Your task to perform on an android device: Go to network settings Image 0: 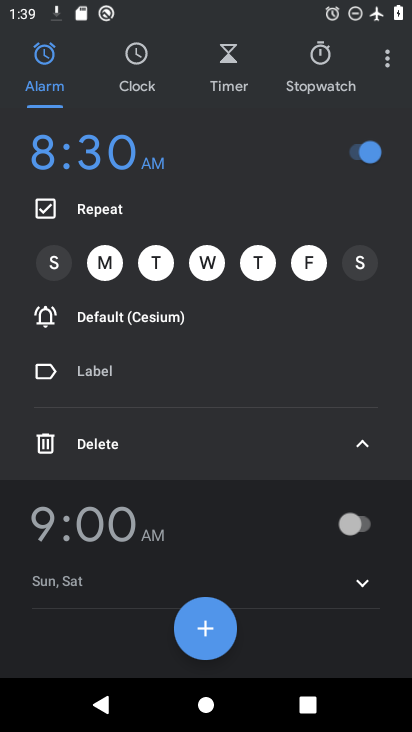
Step 0: press home button
Your task to perform on an android device: Go to network settings Image 1: 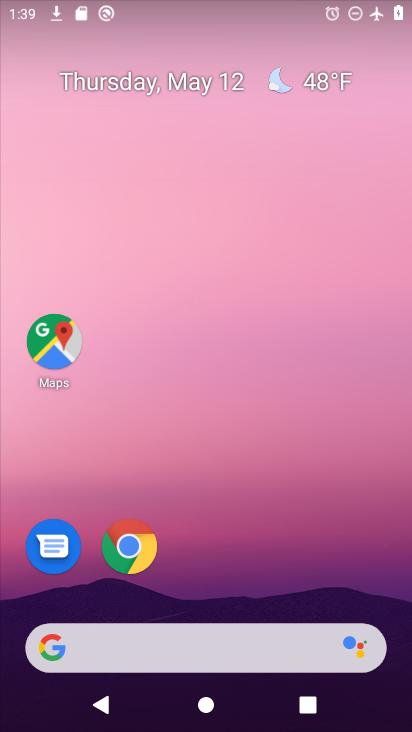
Step 1: click (323, 225)
Your task to perform on an android device: Go to network settings Image 2: 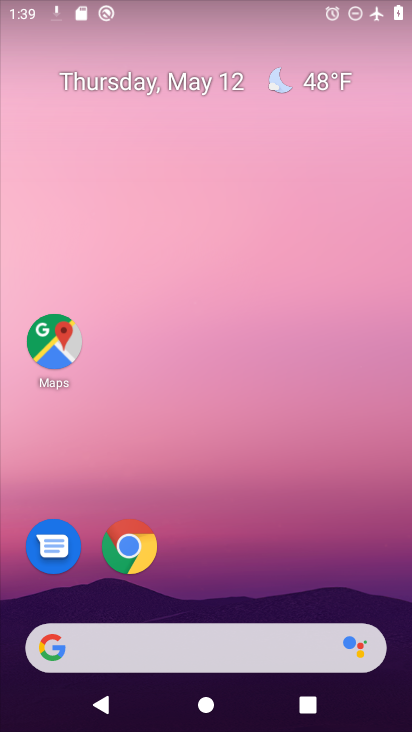
Step 2: drag from (193, 648) to (358, 129)
Your task to perform on an android device: Go to network settings Image 3: 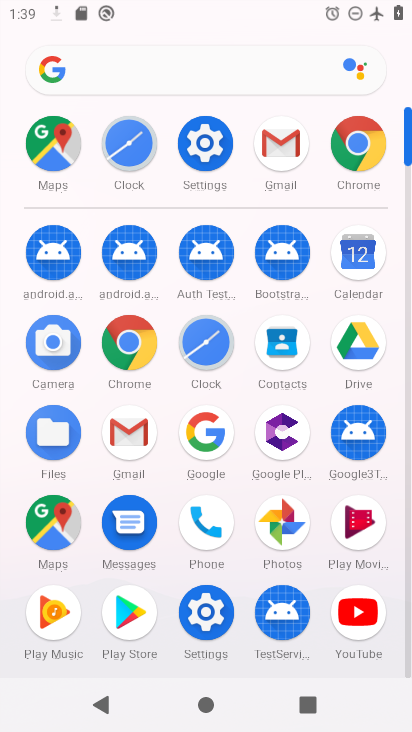
Step 3: click (209, 151)
Your task to perform on an android device: Go to network settings Image 4: 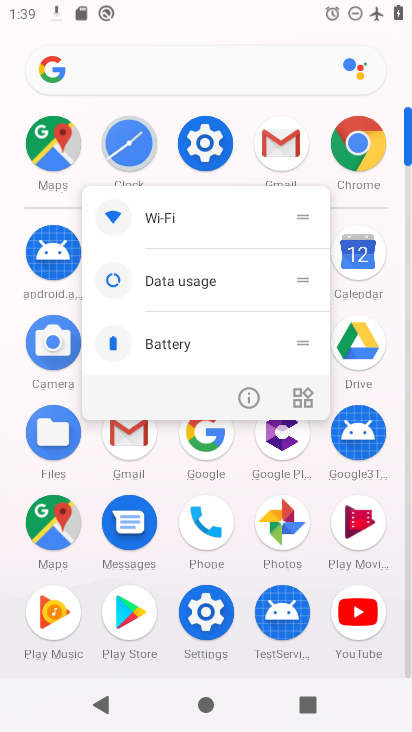
Step 4: click (202, 148)
Your task to perform on an android device: Go to network settings Image 5: 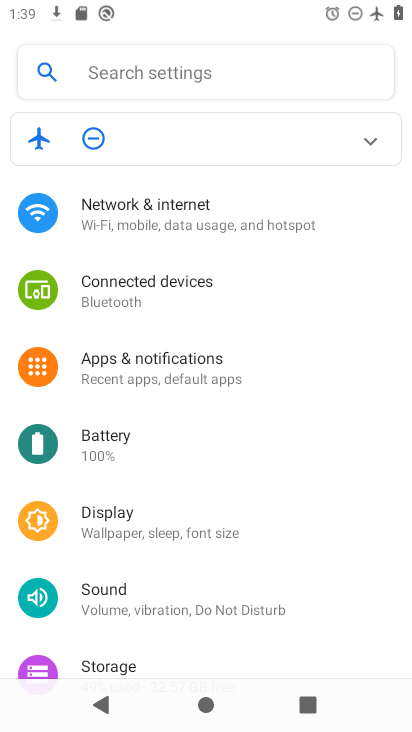
Step 5: click (191, 210)
Your task to perform on an android device: Go to network settings Image 6: 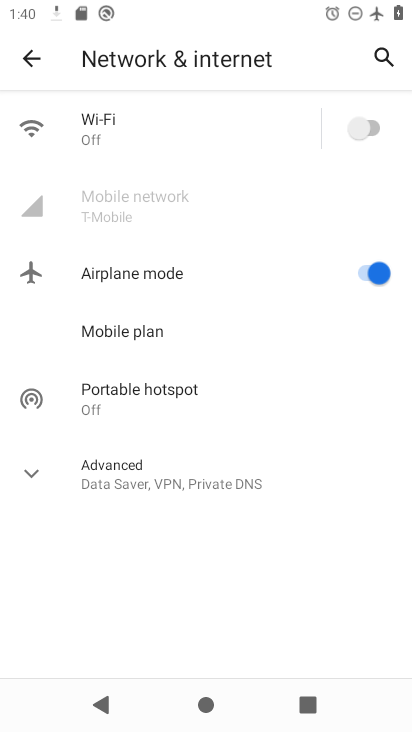
Step 6: task complete